Your task to perform on an android device: turn on the 24-hour format for clock Image 0: 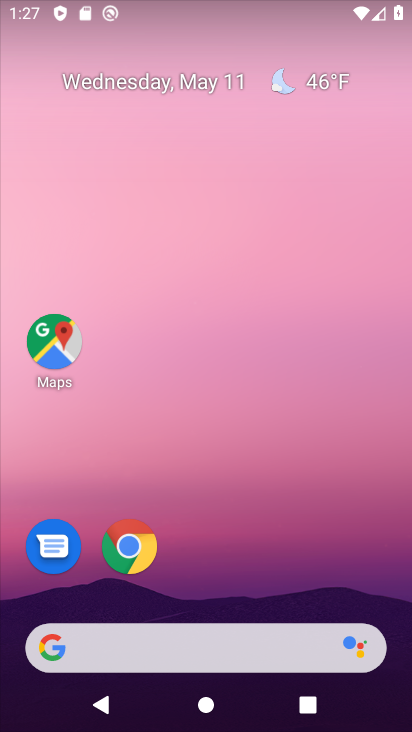
Step 0: drag from (197, 606) to (235, 38)
Your task to perform on an android device: turn on the 24-hour format for clock Image 1: 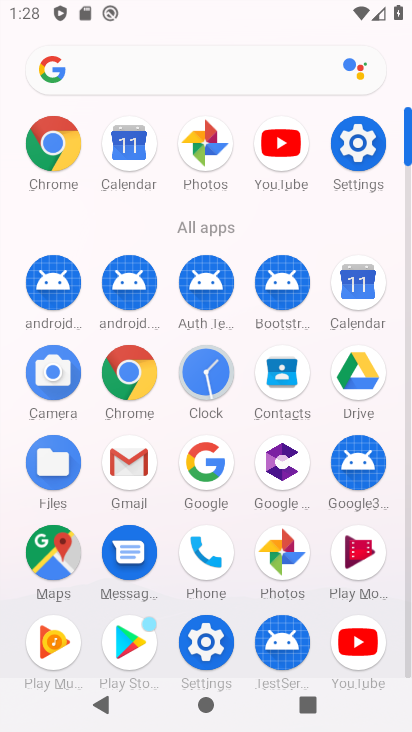
Step 1: click (212, 385)
Your task to perform on an android device: turn on the 24-hour format for clock Image 2: 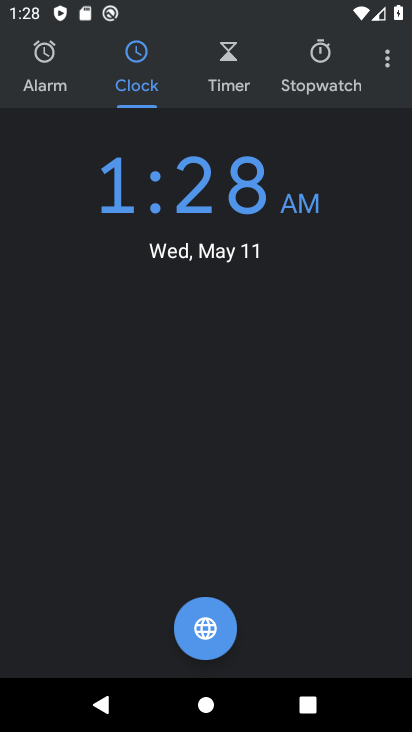
Step 2: click (282, 485)
Your task to perform on an android device: turn on the 24-hour format for clock Image 3: 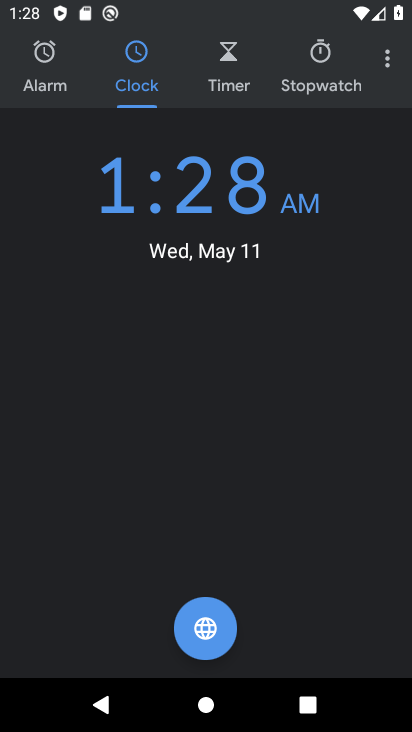
Step 3: click (273, 424)
Your task to perform on an android device: turn on the 24-hour format for clock Image 4: 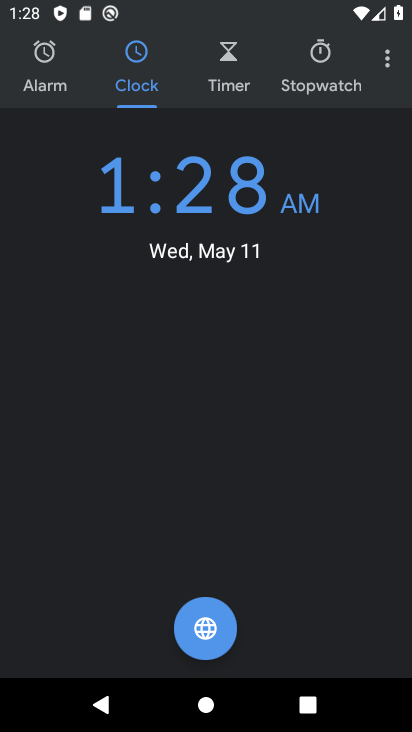
Step 4: click (367, 64)
Your task to perform on an android device: turn on the 24-hour format for clock Image 5: 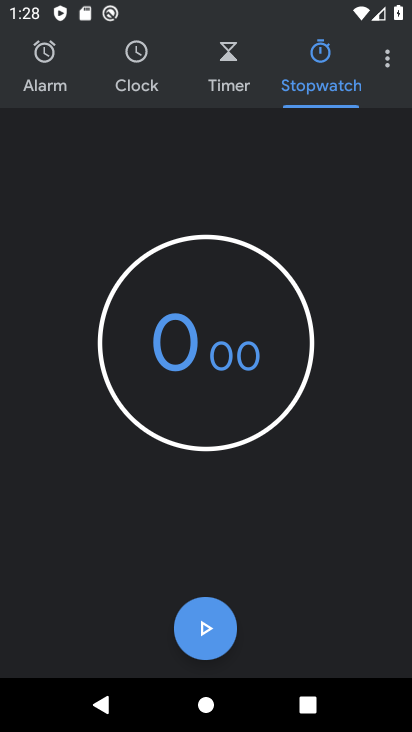
Step 5: click (400, 63)
Your task to perform on an android device: turn on the 24-hour format for clock Image 6: 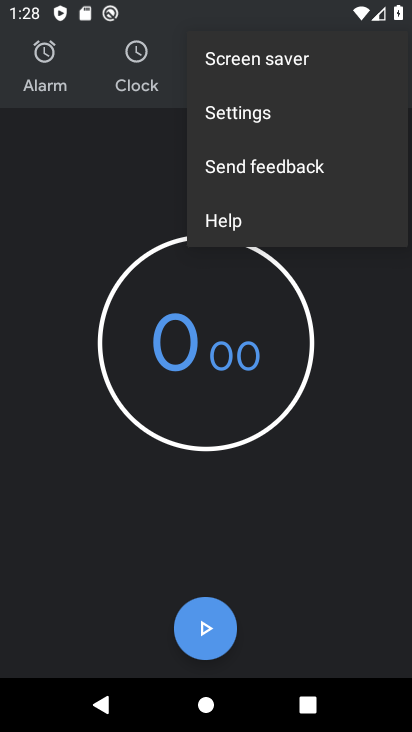
Step 6: click (314, 113)
Your task to perform on an android device: turn on the 24-hour format for clock Image 7: 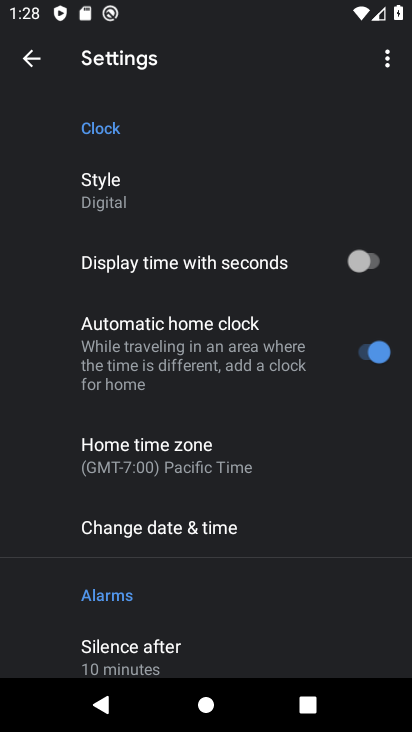
Step 7: drag from (212, 605) to (284, 336)
Your task to perform on an android device: turn on the 24-hour format for clock Image 8: 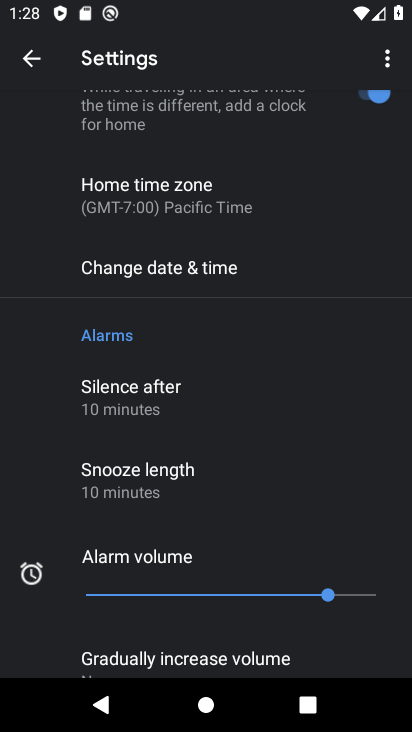
Step 8: click (198, 272)
Your task to perform on an android device: turn on the 24-hour format for clock Image 9: 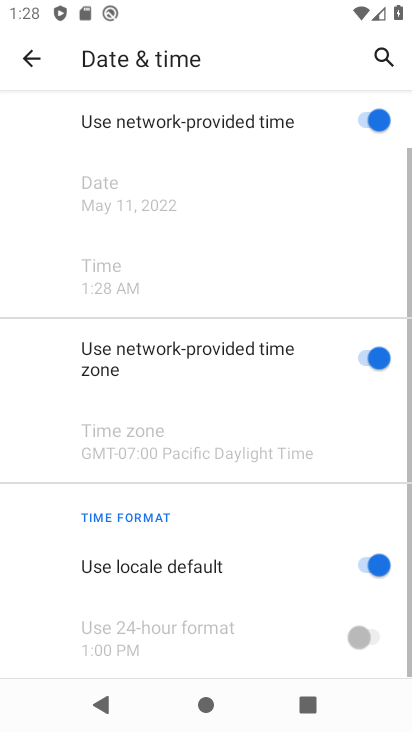
Step 9: drag from (255, 525) to (304, 215)
Your task to perform on an android device: turn on the 24-hour format for clock Image 10: 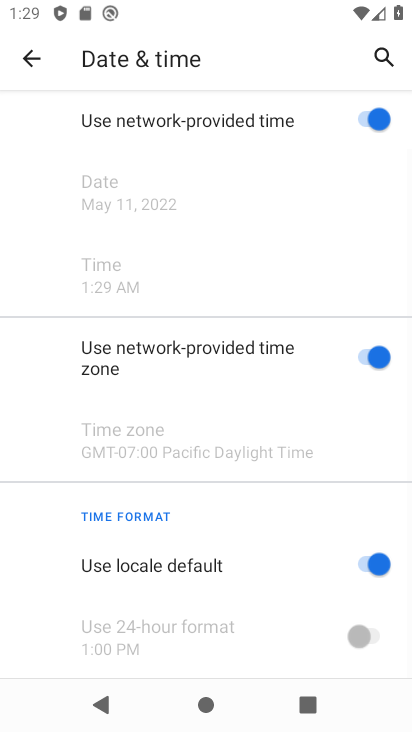
Step 10: click (370, 570)
Your task to perform on an android device: turn on the 24-hour format for clock Image 11: 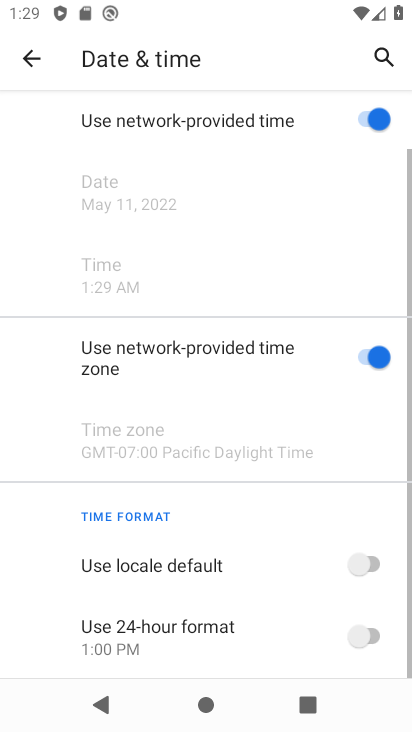
Step 11: click (360, 634)
Your task to perform on an android device: turn on the 24-hour format for clock Image 12: 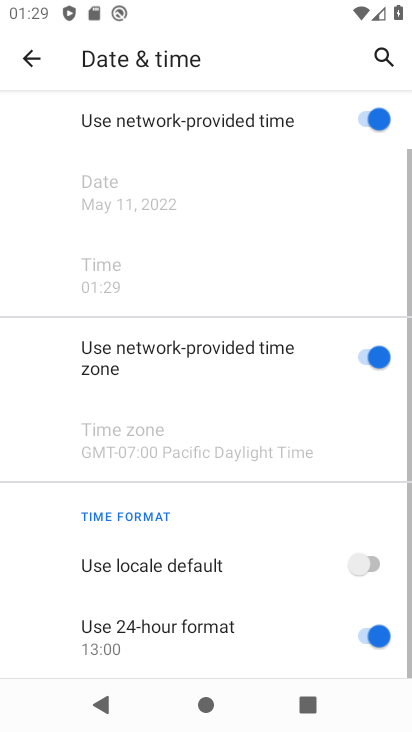
Step 12: task complete